Your task to perform on an android device: open a new tab in the chrome app Image 0: 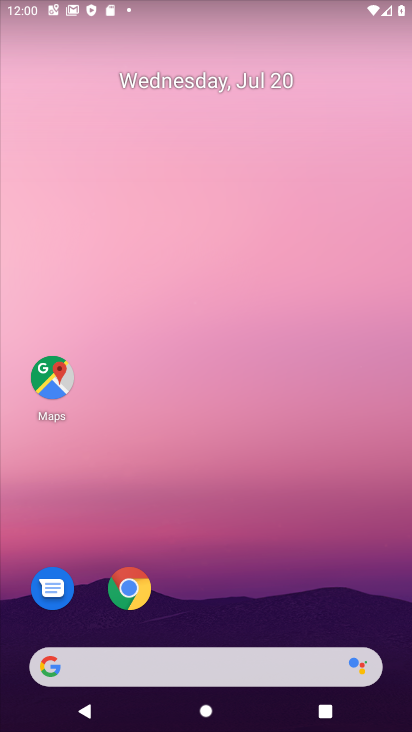
Step 0: click (129, 583)
Your task to perform on an android device: open a new tab in the chrome app Image 1: 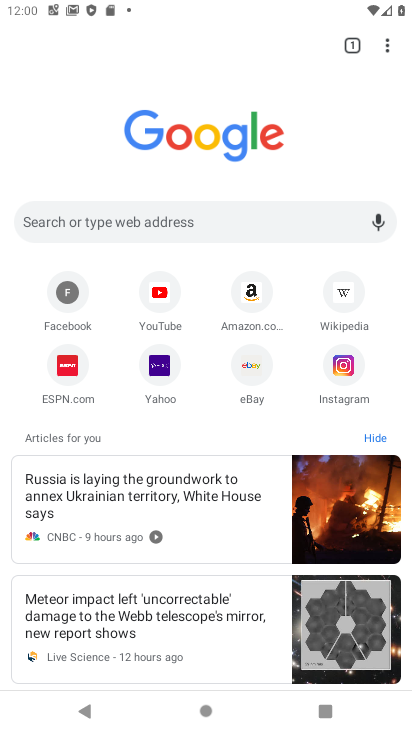
Step 1: click (151, 222)
Your task to perform on an android device: open a new tab in the chrome app Image 2: 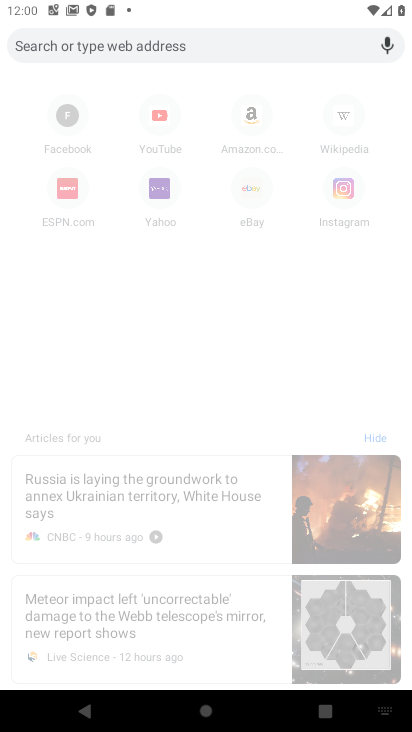
Step 2: press back button
Your task to perform on an android device: open a new tab in the chrome app Image 3: 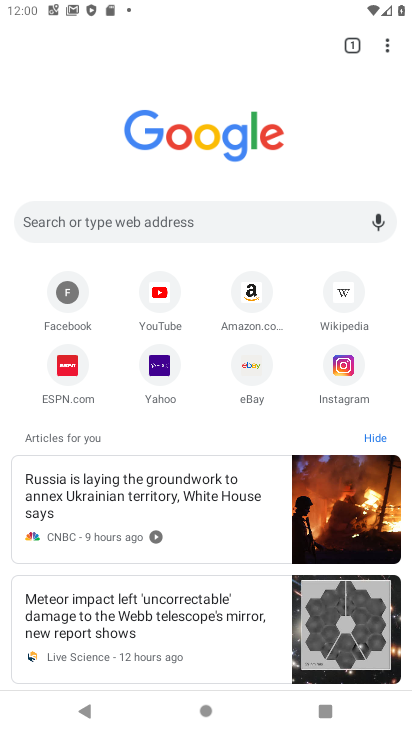
Step 3: click (385, 43)
Your task to perform on an android device: open a new tab in the chrome app Image 4: 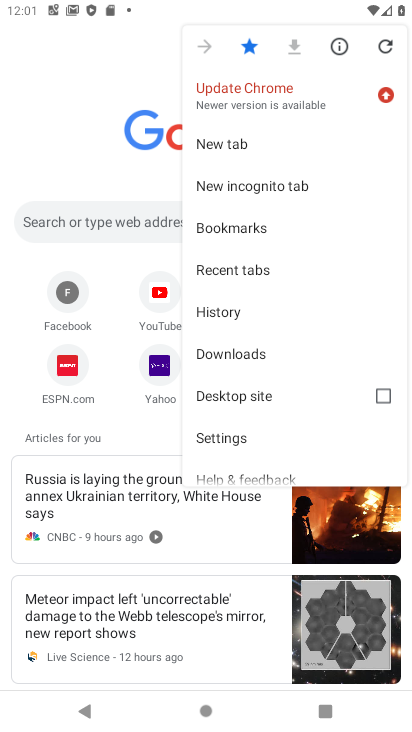
Step 4: click (215, 142)
Your task to perform on an android device: open a new tab in the chrome app Image 5: 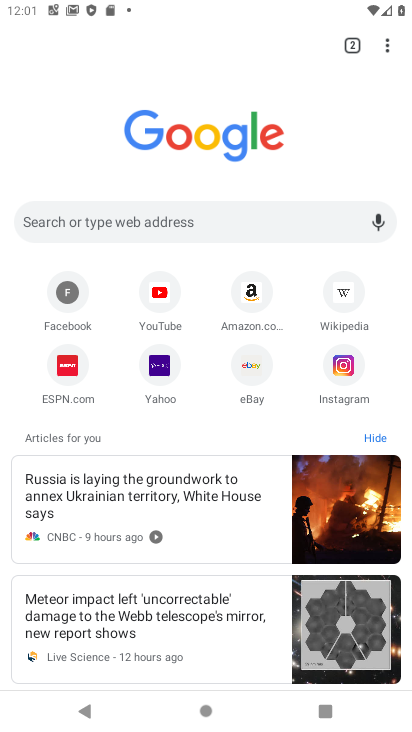
Step 5: task complete